Your task to perform on an android device: open app "NewsBreak: Local News & Alerts" (install if not already installed) Image 0: 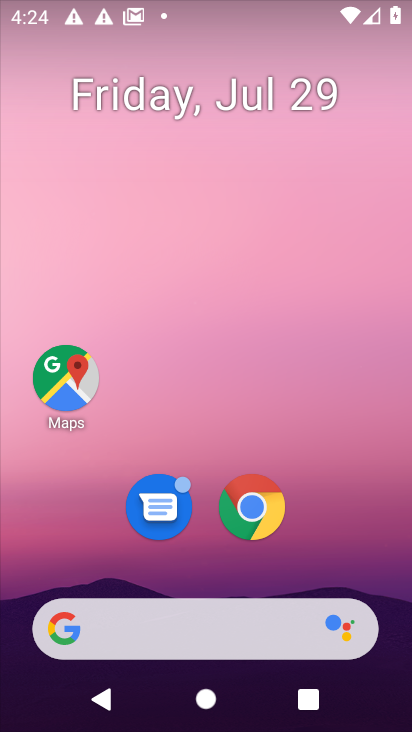
Step 0: drag from (359, 594) to (396, 2)
Your task to perform on an android device: open app "NewsBreak: Local News & Alerts" (install if not already installed) Image 1: 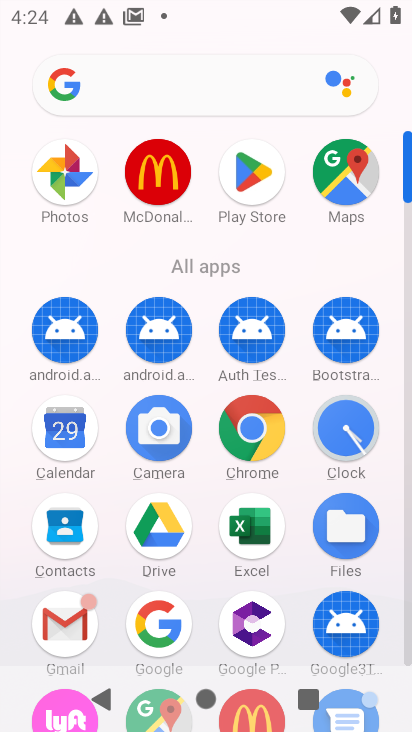
Step 1: click (246, 176)
Your task to perform on an android device: open app "NewsBreak: Local News & Alerts" (install if not already installed) Image 2: 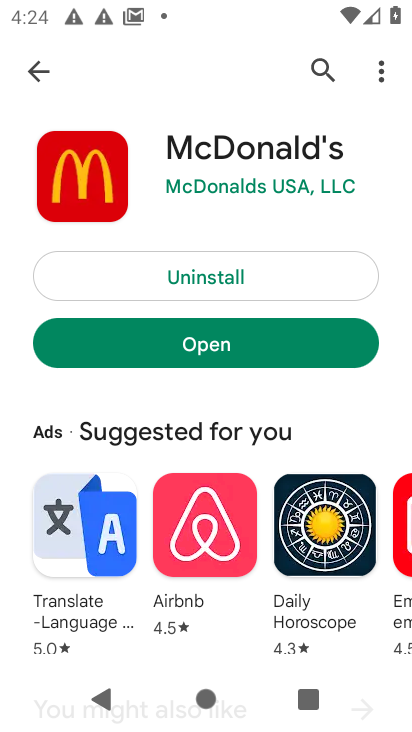
Step 2: click (16, 722)
Your task to perform on an android device: open app "NewsBreak: Local News & Alerts" (install if not already installed) Image 3: 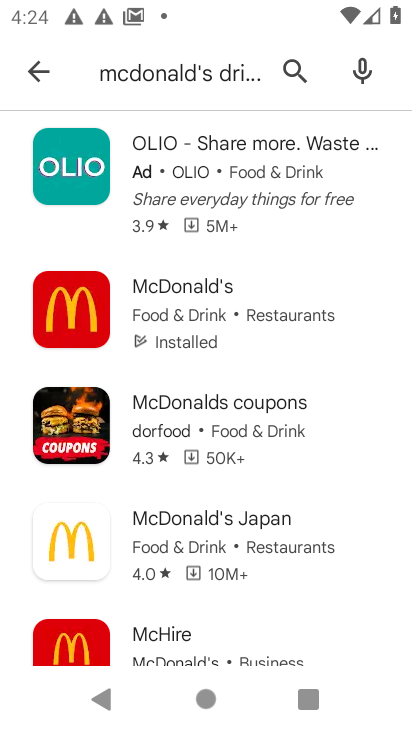
Step 3: press home button
Your task to perform on an android device: open app "NewsBreak: Local News & Alerts" (install if not already installed) Image 4: 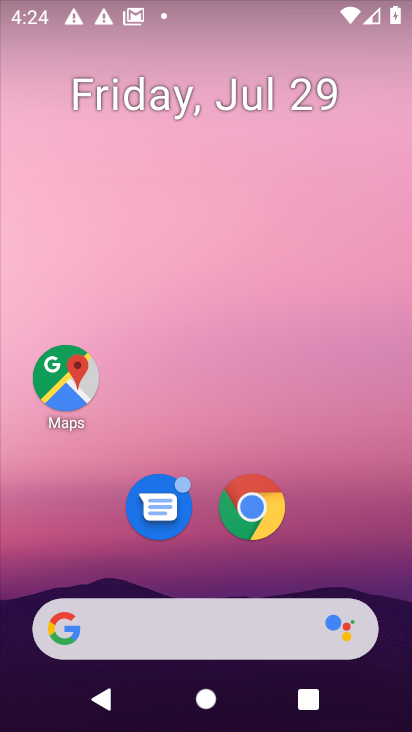
Step 4: drag from (316, 529) to (271, 8)
Your task to perform on an android device: open app "NewsBreak: Local News & Alerts" (install if not already installed) Image 5: 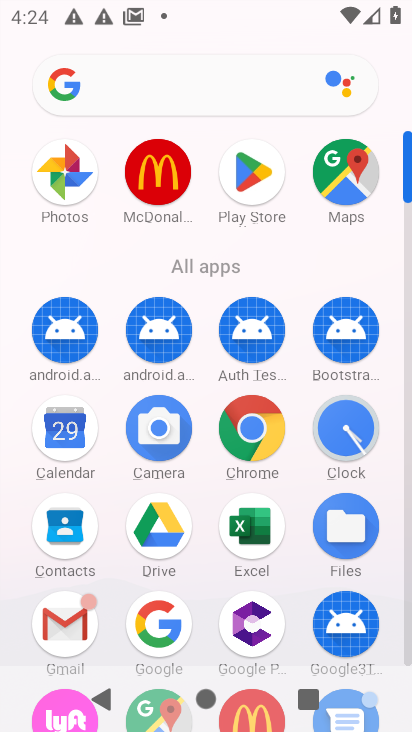
Step 5: click (252, 184)
Your task to perform on an android device: open app "NewsBreak: Local News & Alerts" (install if not already installed) Image 6: 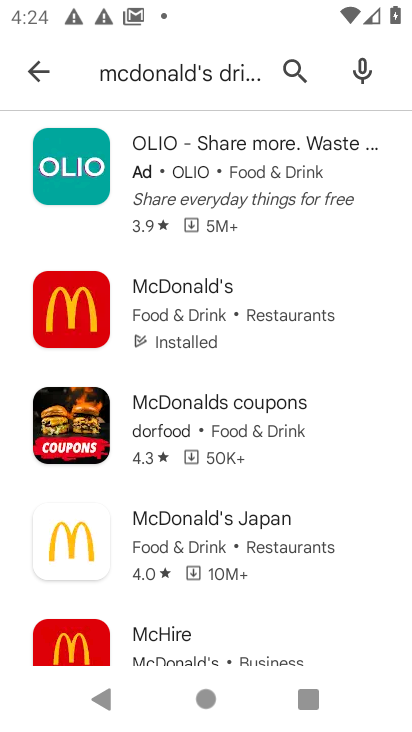
Step 6: click (289, 67)
Your task to perform on an android device: open app "NewsBreak: Local News & Alerts" (install if not already installed) Image 7: 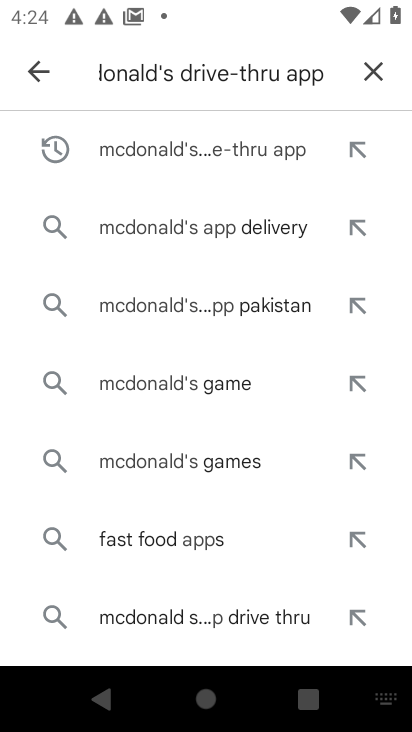
Step 7: click (376, 68)
Your task to perform on an android device: open app "NewsBreak: Local News & Alerts" (install if not already installed) Image 8: 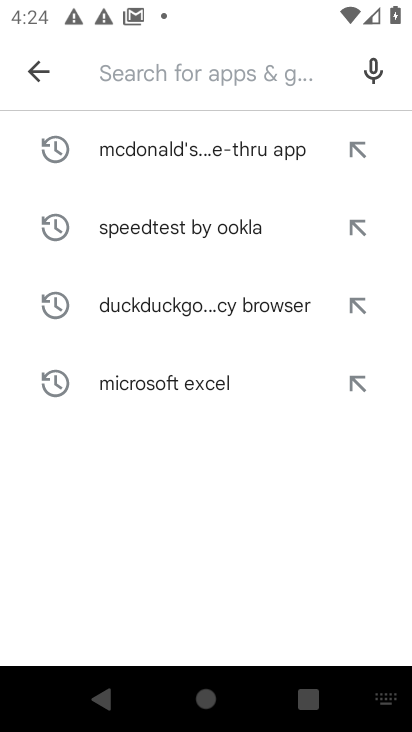
Step 8: type "NewsBreak: Local News & Alerts"
Your task to perform on an android device: open app "NewsBreak: Local News & Alerts" (install if not already installed) Image 9: 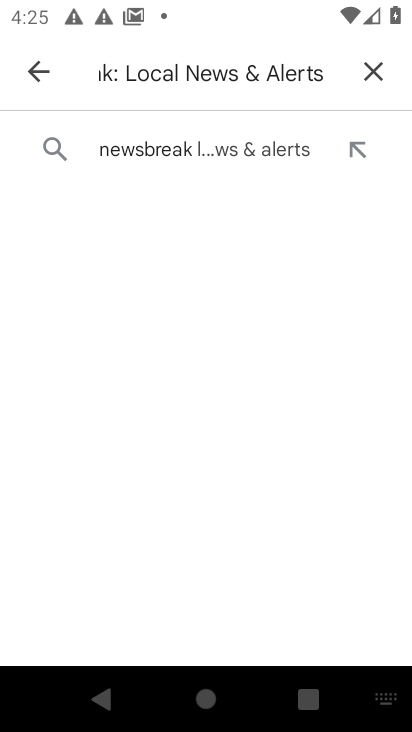
Step 9: click (165, 148)
Your task to perform on an android device: open app "NewsBreak: Local News & Alerts" (install if not already installed) Image 10: 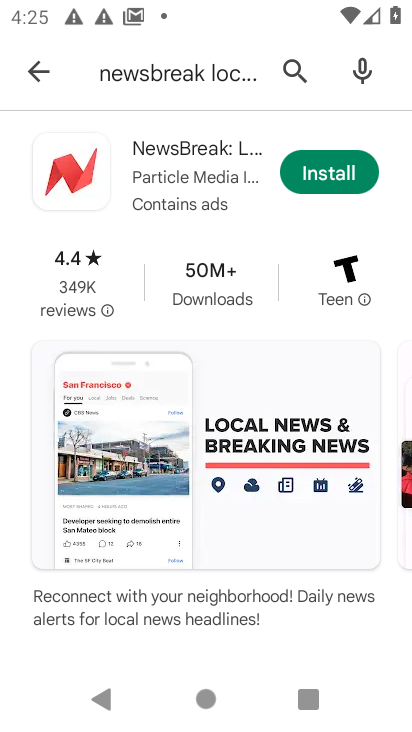
Step 10: click (322, 171)
Your task to perform on an android device: open app "NewsBreak: Local News & Alerts" (install if not already installed) Image 11: 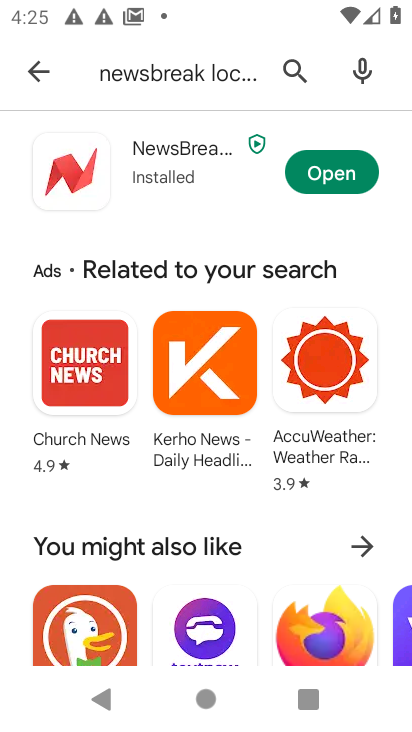
Step 11: click (372, 185)
Your task to perform on an android device: open app "NewsBreak: Local News & Alerts" (install if not already installed) Image 12: 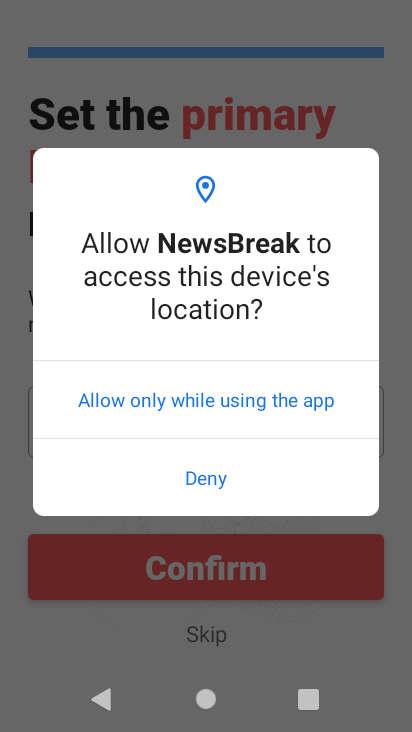
Step 12: task complete